Your task to perform on an android device: Search for pizza restaurants on Maps Image 0: 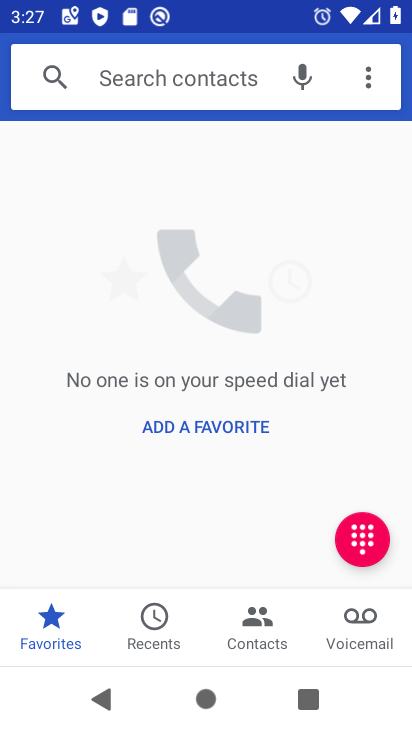
Step 0: press home button
Your task to perform on an android device: Search for pizza restaurants on Maps Image 1: 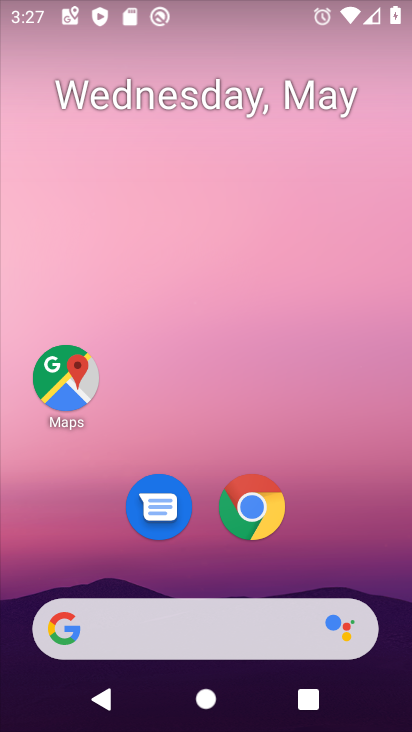
Step 1: click (66, 377)
Your task to perform on an android device: Search for pizza restaurants on Maps Image 2: 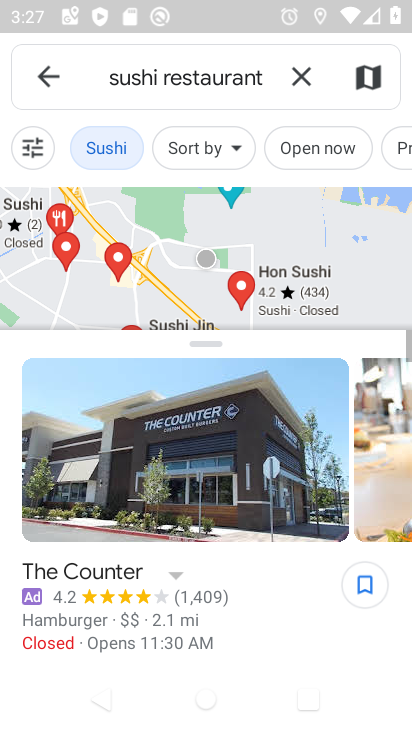
Step 2: click (299, 79)
Your task to perform on an android device: Search for pizza restaurants on Maps Image 3: 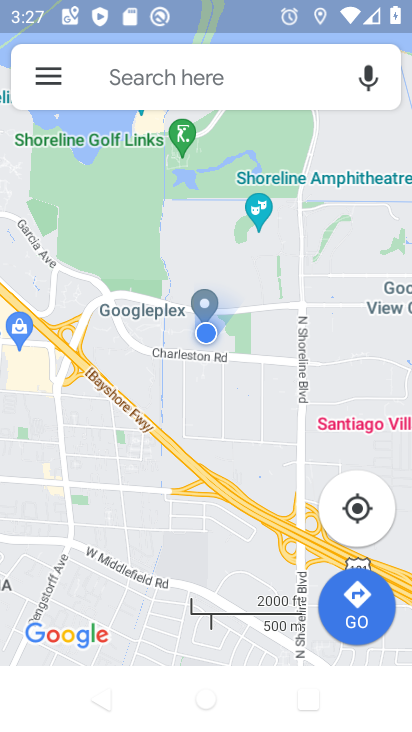
Step 3: click (161, 86)
Your task to perform on an android device: Search for pizza restaurants on Maps Image 4: 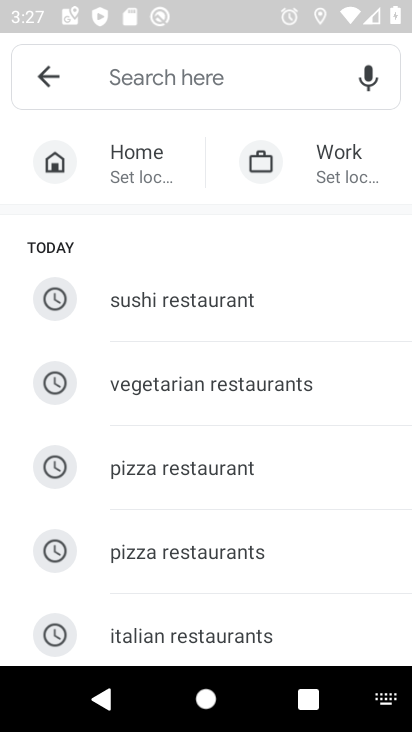
Step 4: click (200, 473)
Your task to perform on an android device: Search for pizza restaurants on Maps Image 5: 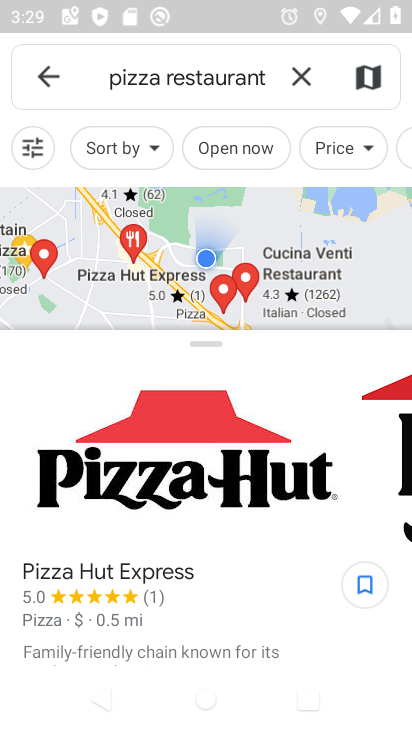
Step 5: task complete